Your task to perform on an android device: What's on my calendar today? Image 0: 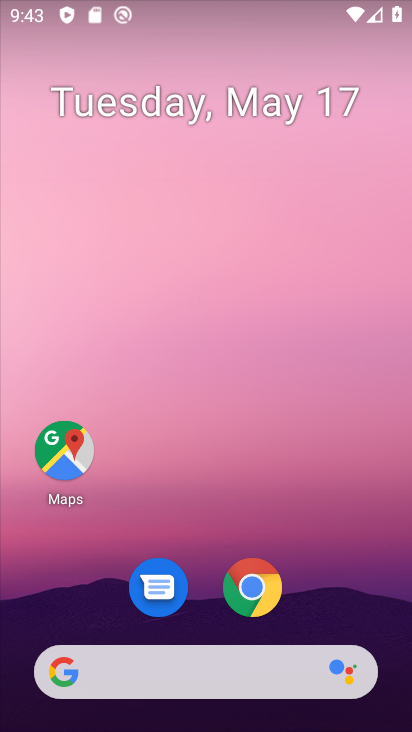
Step 0: click (241, 102)
Your task to perform on an android device: What's on my calendar today? Image 1: 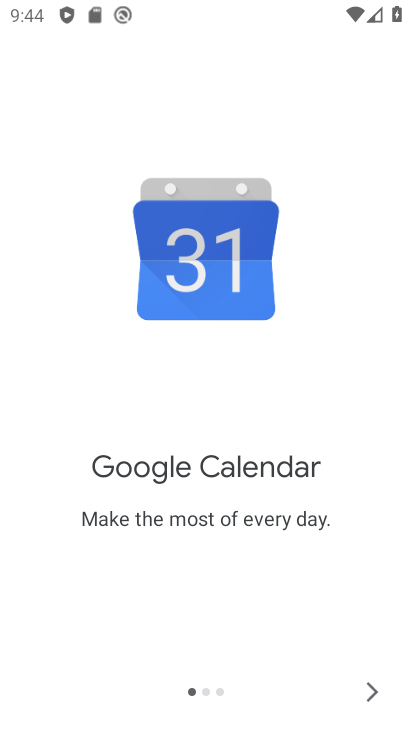
Step 1: click (374, 688)
Your task to perform on an android device: What's on my calendar today? Image 2: 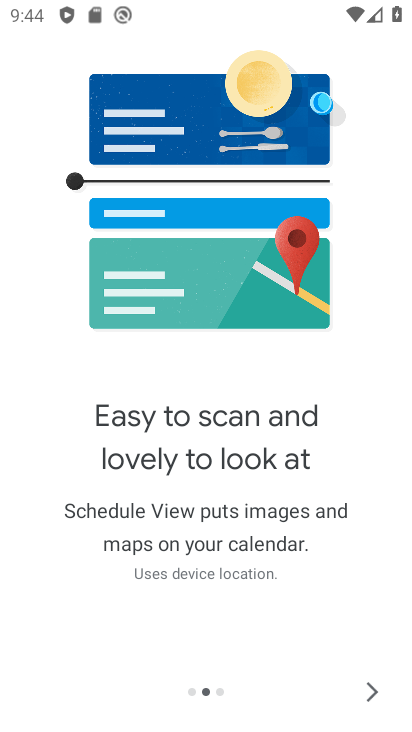
Step 2: click (374, 688)
Your task to perform on an android device: What's on my calendar today? Image 3: 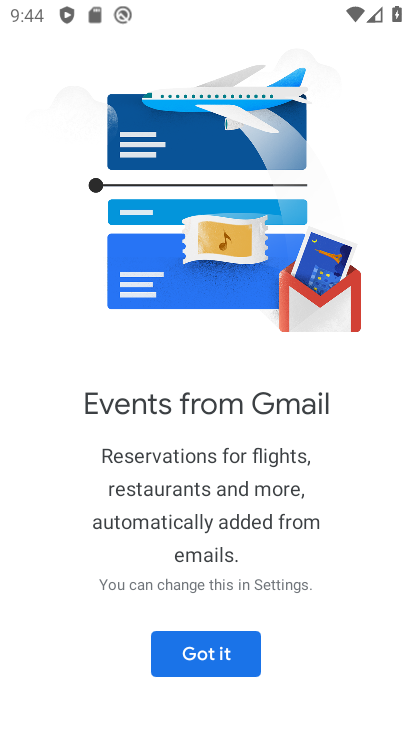
Step 3: click (198, 651)
Your task to perform on an android device: What's on my calendar today? Image 4: 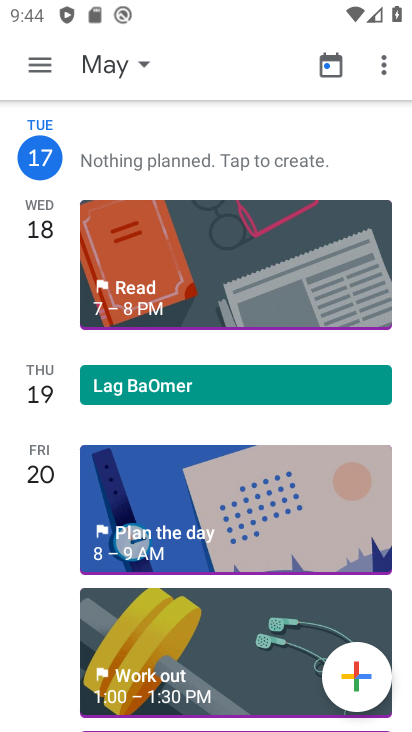
Step 4: task complete